Your task to perform on an android device: turn pop-ups on in chrome Image 0: 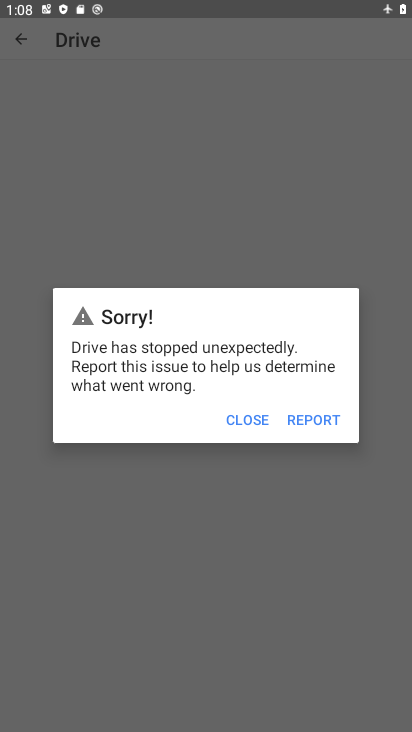
Step 0: press home button
Your task to perform on an android device: turn pop-ups on in chrome Image 1: 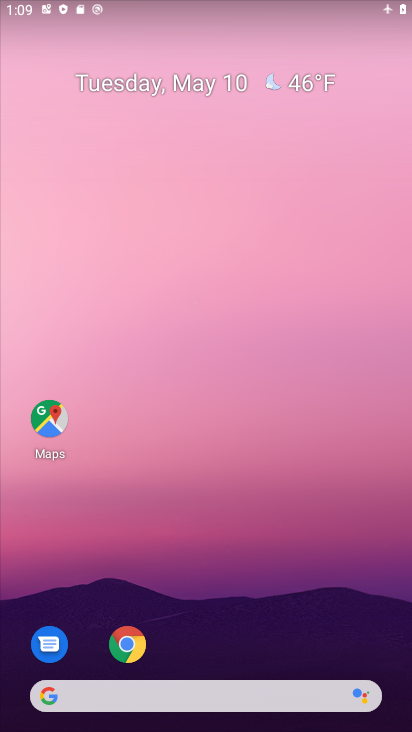
Step 1: drag from (253, 650) to (306, 296)
Your task to perform on an android device: turn pop-ups on in chrome Image 2: 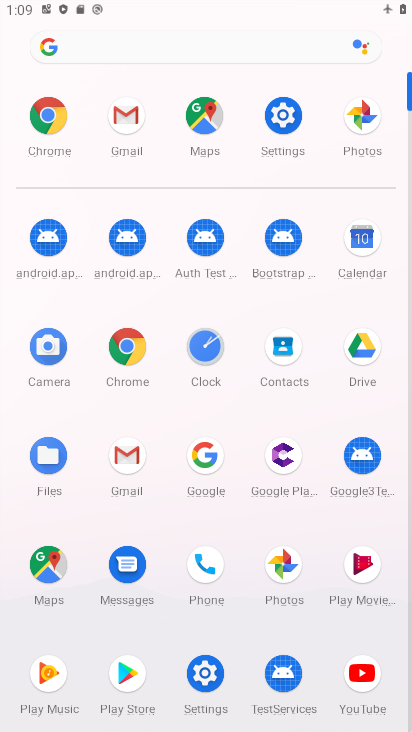
Step 2: click (133, 367)
Your task to perform on an android device: turn pop-ups on in chrome Image 3: 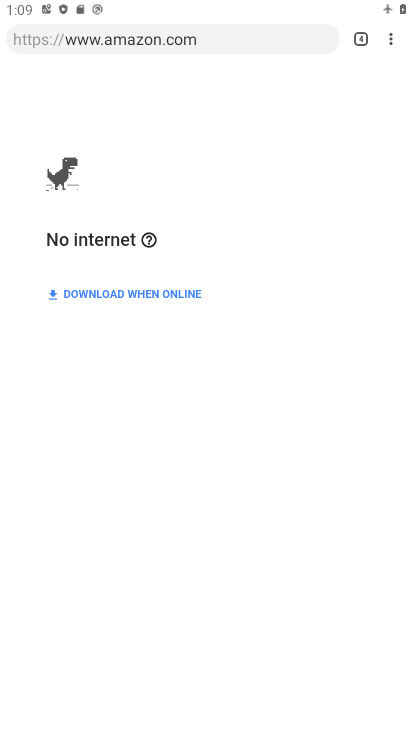
Step 3: click (386, 48)
Your task to perform on an android device: turn pop-ups on in chrome Image 4: 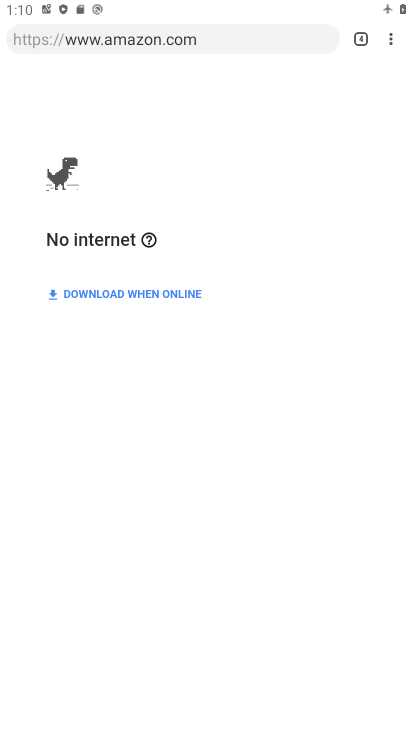
Step 4: click (396, 46)
Your task to perform on an android device: turn pop-ups on in chrome Image 5: 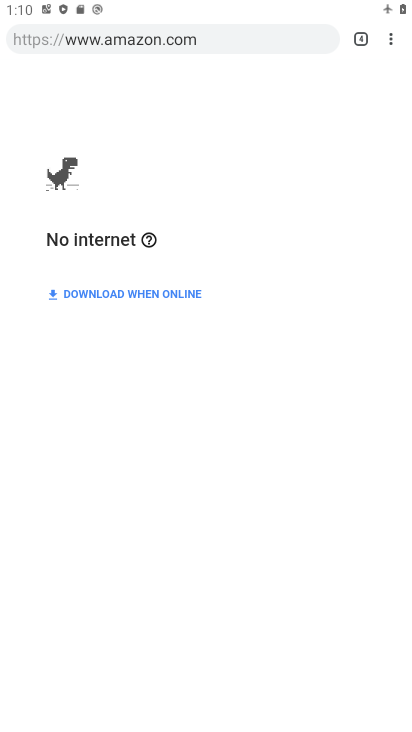
Step 5: click (393, 44)
Your task to perform on an android device: turn pop-ups on in chrome Image 6: 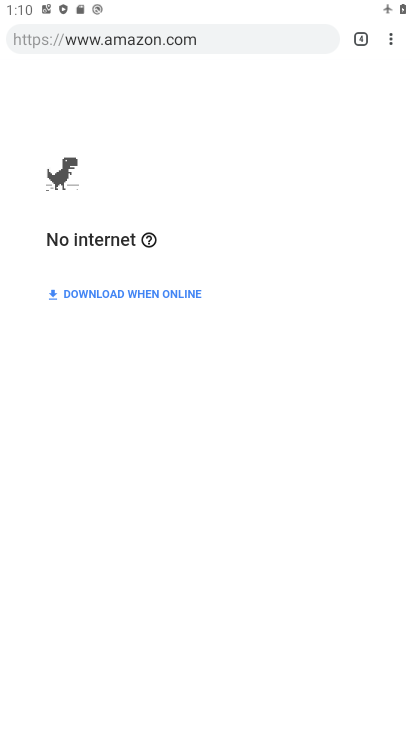
Step 6: click (390, 45)
Your task to perform on an android device: turn pop-ups on in chrome Image 7: 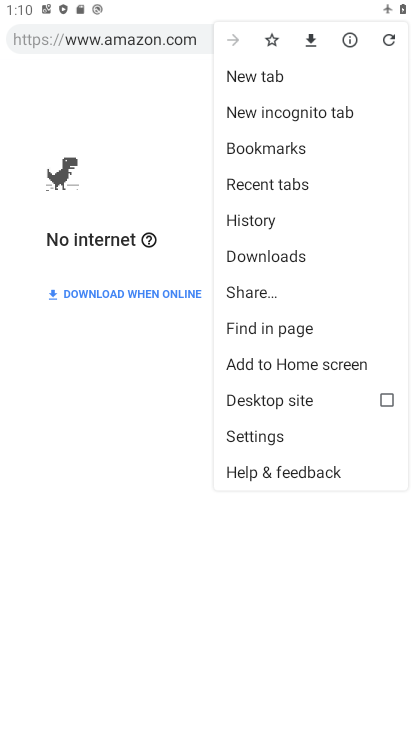
Step 7: click (297, 438)
Your task to perform on an android device: turn pop-ups on in chrome Image 8: 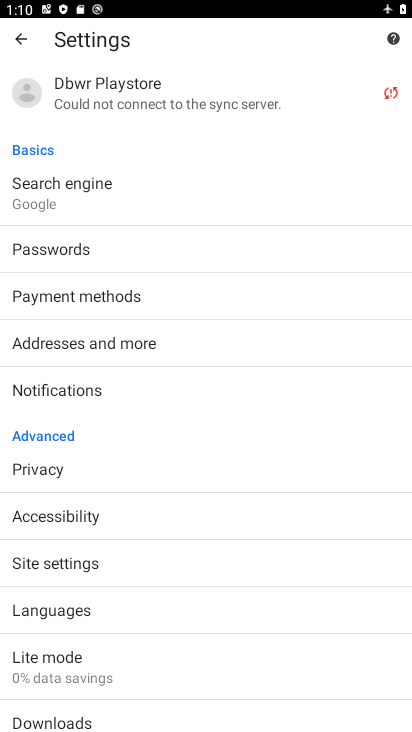
Step 8: click (97, 572)
Your task to perform on an android device: turn pop-ups on in chrome Image 9: 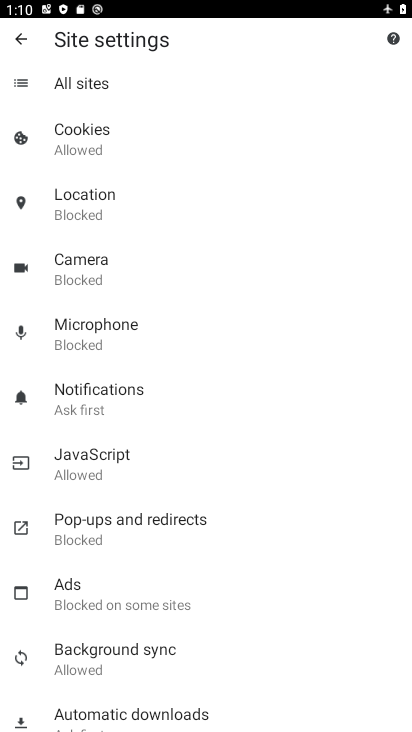
Step 9: click (189, 518)
Your task to perform on an android device: turn pop-ups on in chrome Image 10: 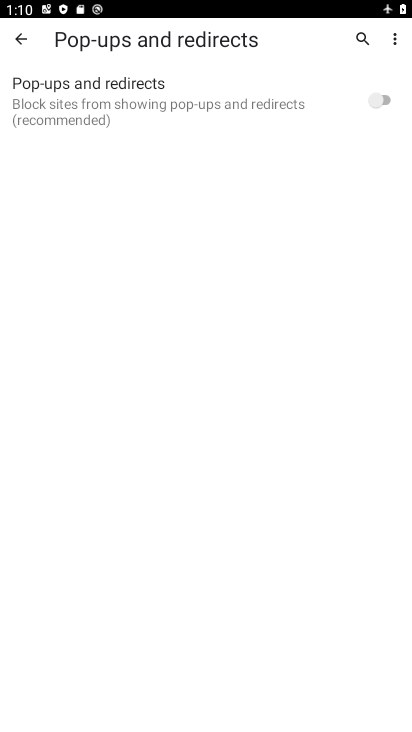
Step 10: click (378, 102)
Your task to perform on an android device: turn pop-ups on in chrome Image 11: 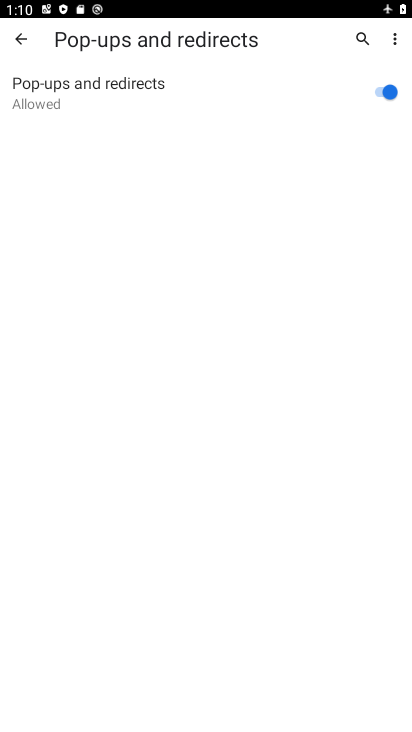
Step 11: task complete